Your task to perform on an android device: Show me popular videos on Youtube Image 0: 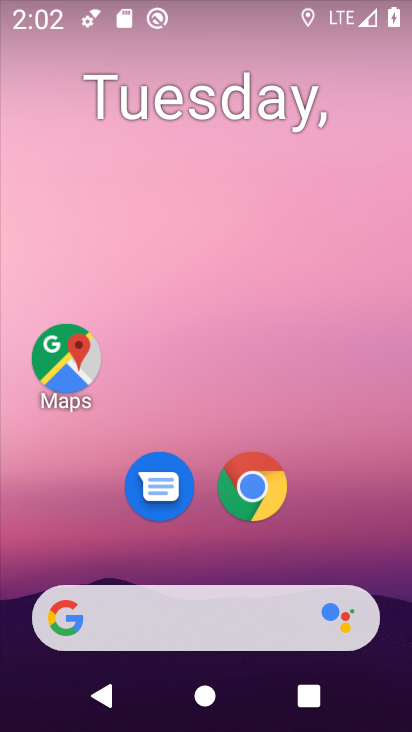
Step 0: press home button
Your task to perform on an android device: Show me popular videos on Youtube Image 1: 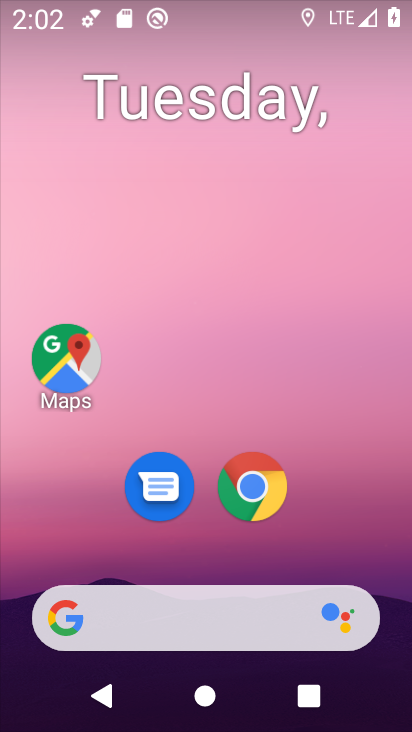
Step 1: drag from (380, 516) to (381, 71)
Your task to perform on an android device: Show me popular videos on Youtube Image 2: 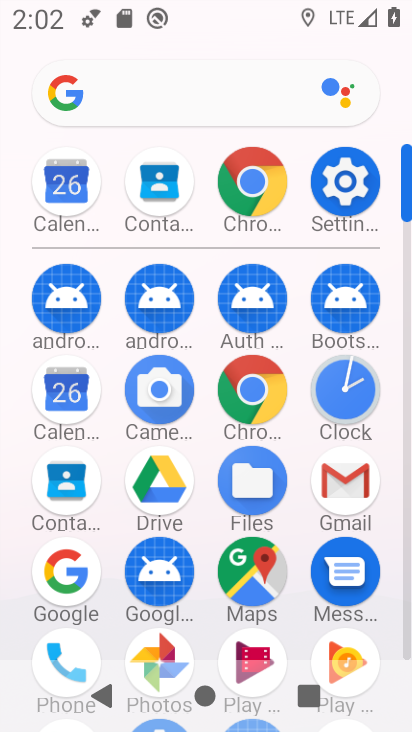
Step 2: drag from (392, 512) to (385, 271)
Your task to perform on an android device: Show me popular videos on Youtube Image 3: 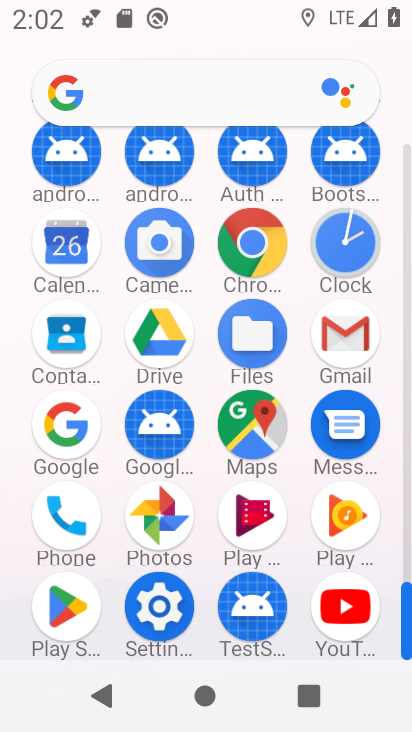
Step 3: click (342, 605)
Your task to perform on an android device: Show me popular videos on Youtube Image 4: 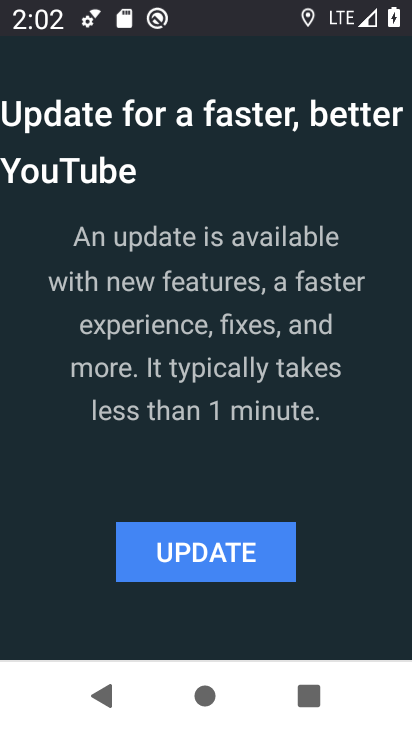
Step 4: click (267, 562)
Your task to perform on an android device: Show me popular videos on Youtube Image 5: 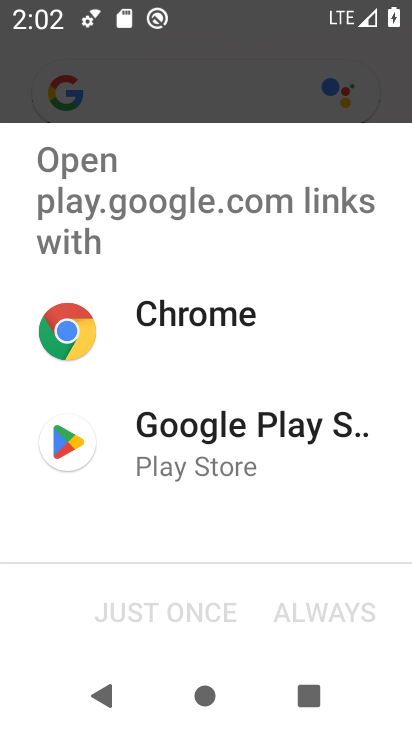
Step 5: click (194, 437)
Your task to perform on an android device: Show me popular videos on Youtube Image 6: 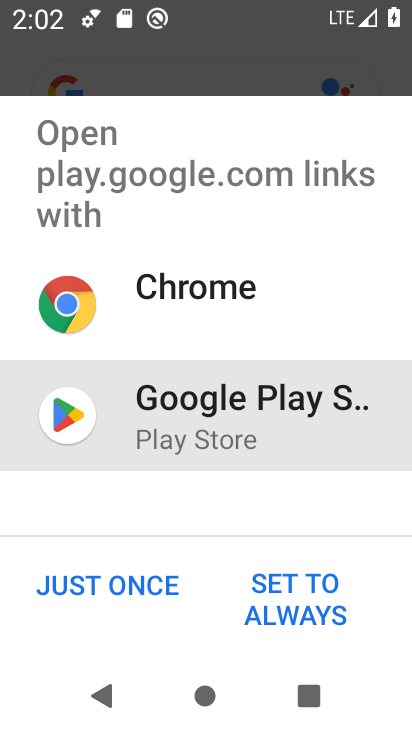
Step 6: click (123, 579)
Your task to perform on an android device: Show me popular videos on Youtube Image 7: 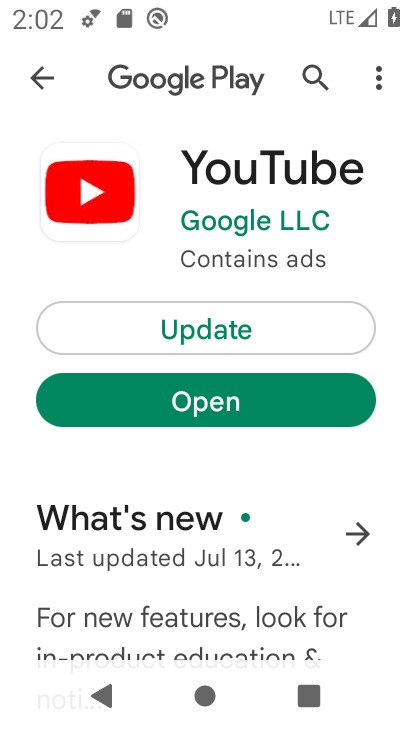
Step 7: click (281, 333)
Your task to perform on an android device: Show me popular videos on Youtube Image 8: 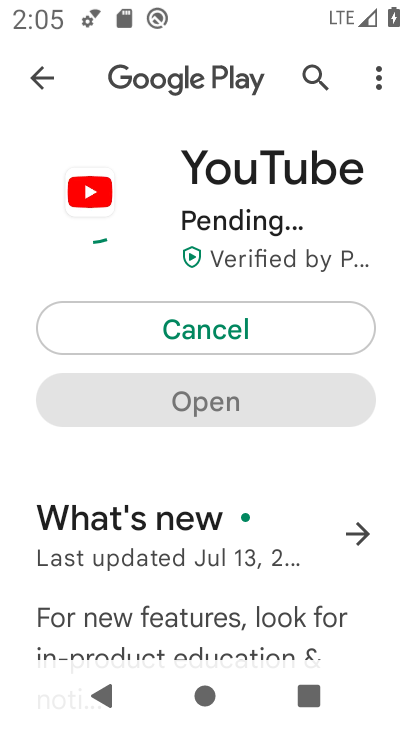
Step 8: task complete